Your task to perform on an android device: turn on airplane mode Image 0: 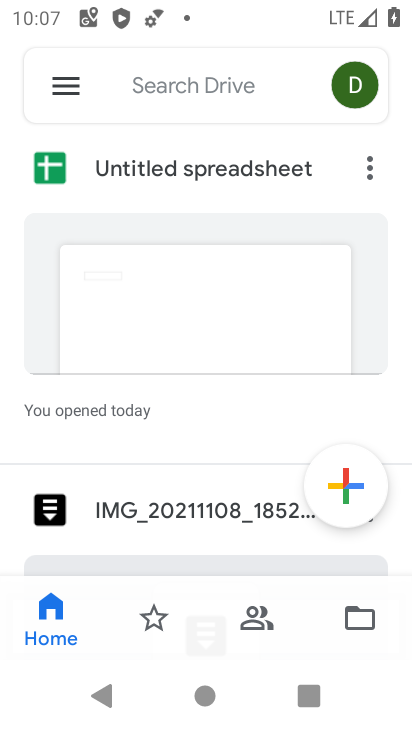
Step 0: press home button
Your task to perform on an android device: turn on airplane mode Image 1: 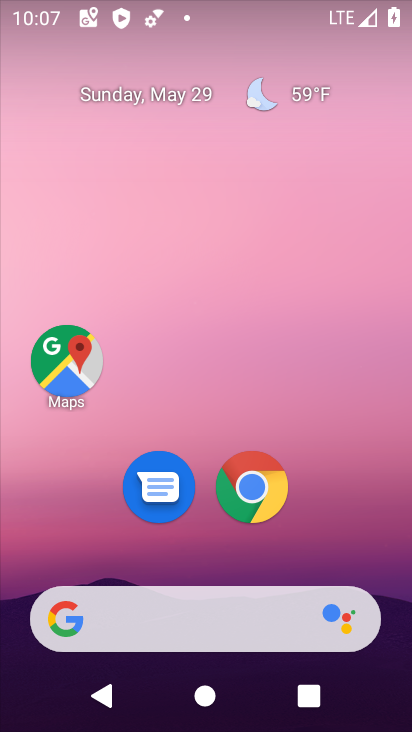
Step 1: drag from (396, 694) to (358, 23)
Your task to perform on an android device: turn on airplane mode Image 2: 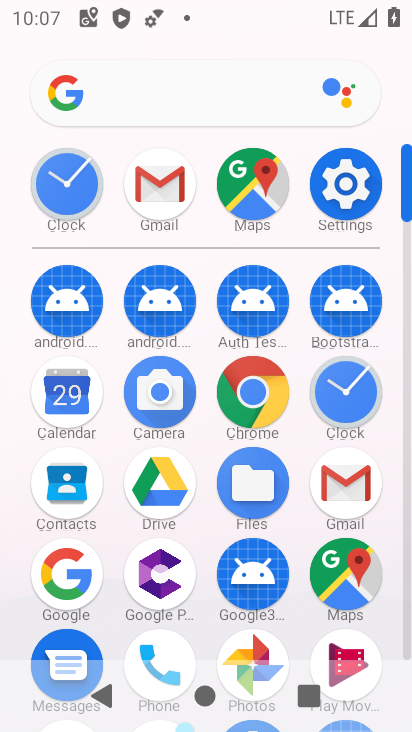
Step 2: click (342, 157)
Your task to perform on an android device: turn on airplane mode Image 3: 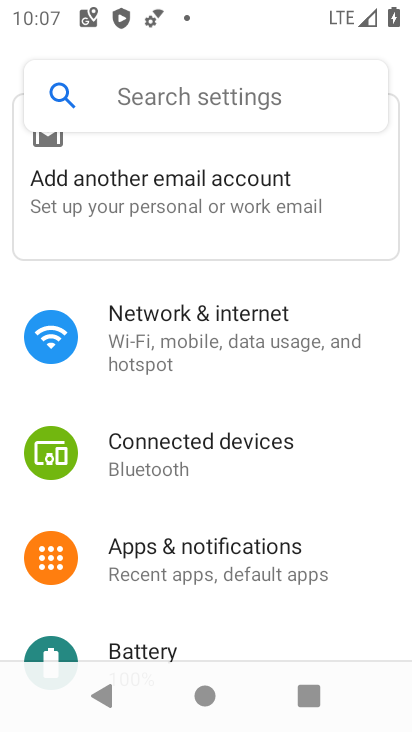
Step 3: click (199, 325)
Your task to perform on an android device: turn on airplane mode Image 4: 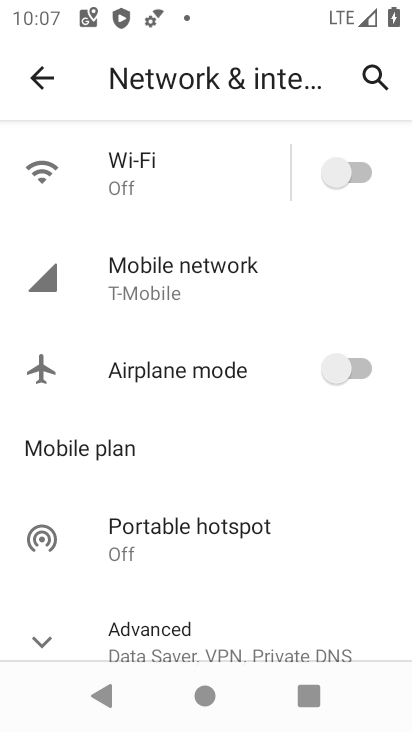
Step 4: click (356, 371)
Your task to perform on an android device: turn on airplane mode Image 5: 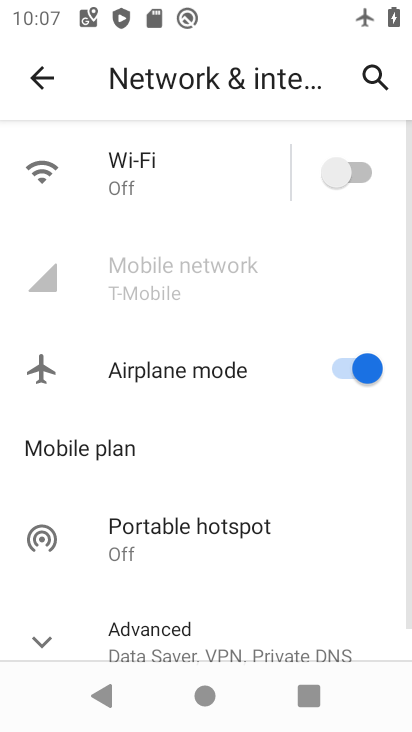
Step 5: task complete